Your task to perform on an android device: turn off location Image 0: 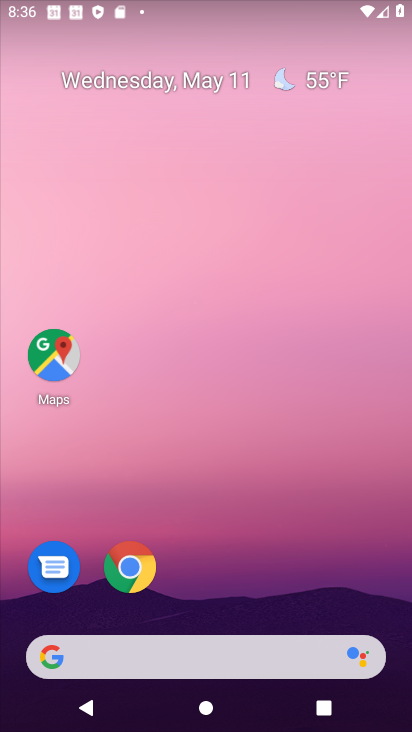
Step 0: drag from (220, 602) to (288, 5)
Your task to perform on an android device: turn off location Image 1: 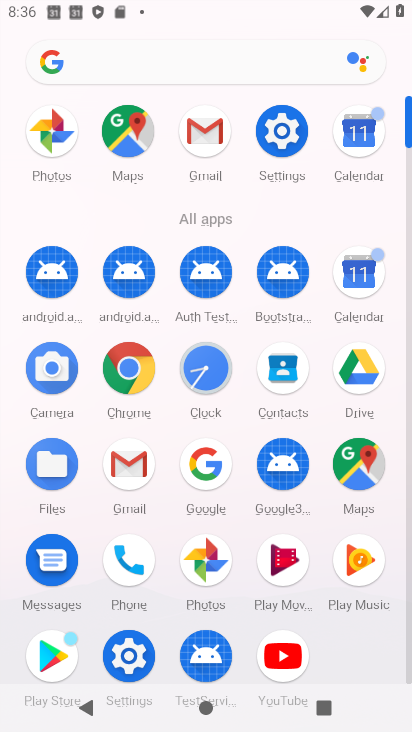
Step 1: click (270, 160)
Your task to perform on an android device: turn off location Image 2: 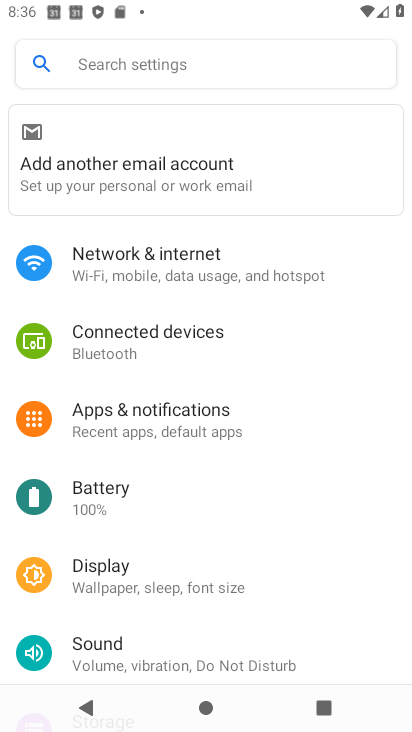
Step 2: drag from (153, 572) to (233, 290)
Your task to perform on an android device: turn off location Image 3: 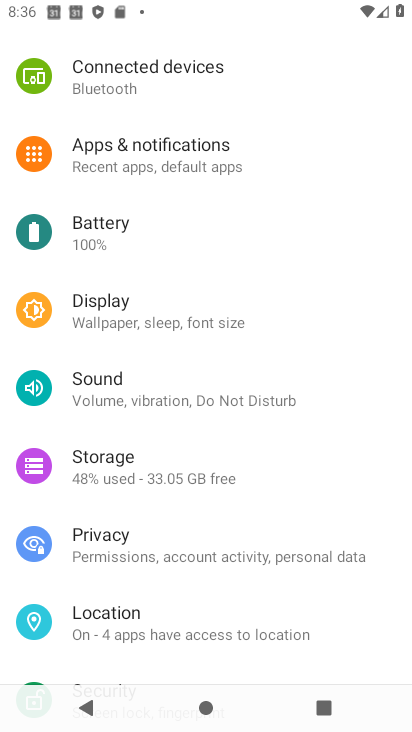
Step 3: click (115, 624)
Your task to perform on an android device: turn off location Image 4: 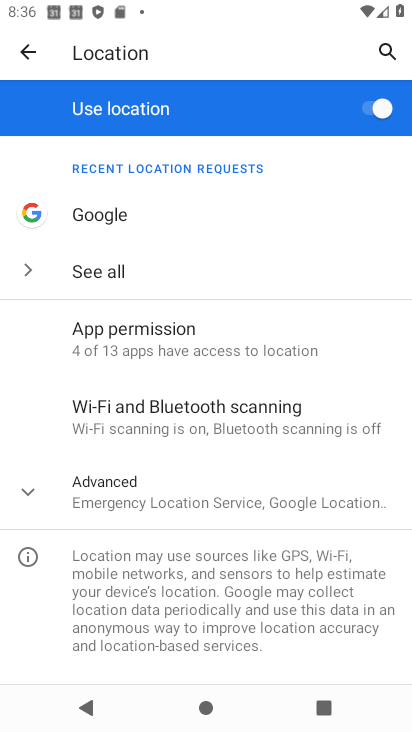
Step 4: click (356, 98)
Your task to perform on an android device: turn off location Image 5: 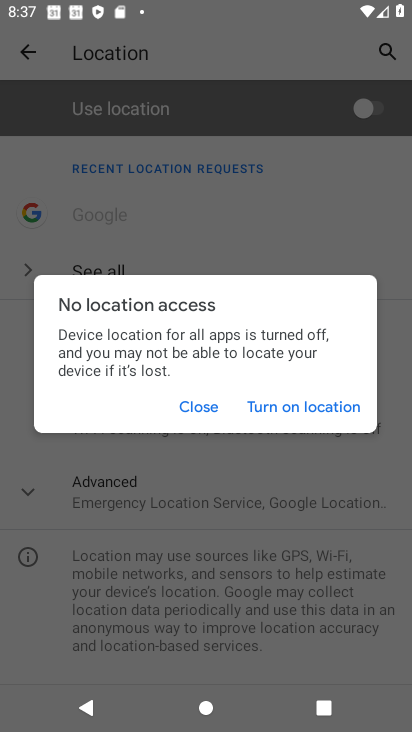
Step 5: click (206, 399)
Your task to perform on an android device: turn off location Image 6: 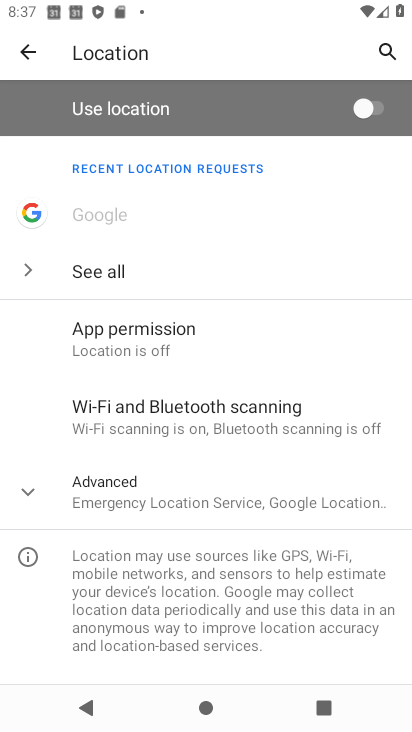
Step 6: task complete